Your task to perform on an android device: turn on translation in the chrome app Image 0: 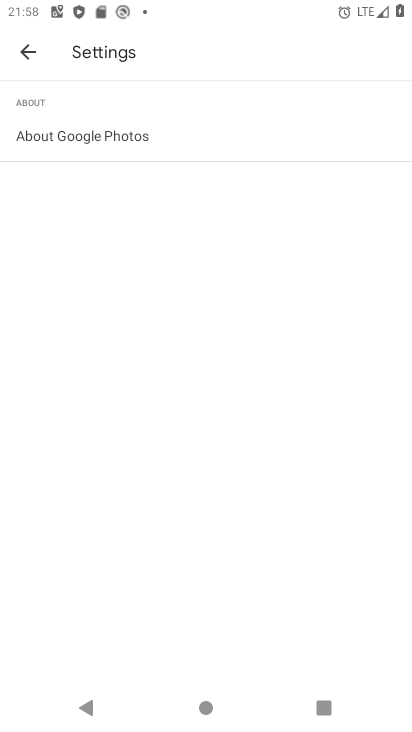
Step 0: press home button
Your task to perform on an android device: turn on translation in the chrome app Image 1: 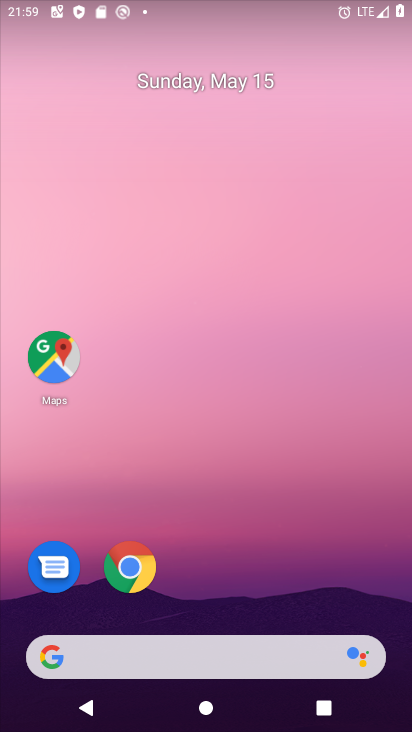
Step 1: click (134, 576)
Your task to perform on an android device: turn on translation in the chrome app Image 2: 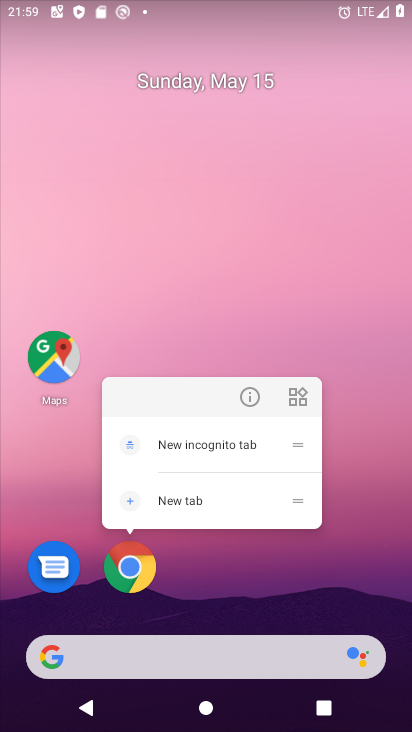
Step 2: click (134, 576)
Your task to perform on an android device: turn on translation in the chrome app Image 3: 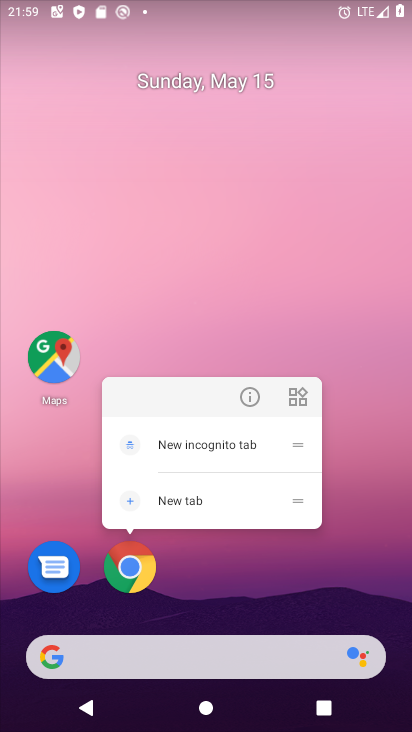
Step 3: click (134, 576)
Your task to perform on an android device: turn on translation in the chrome app Image 4: 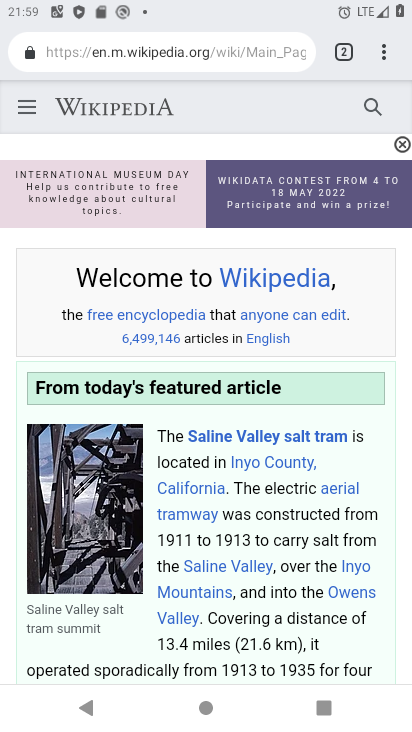
Step 4: click (390, 47)
Your task to perform on an android device: turn on translation in the chrome app Image 5: 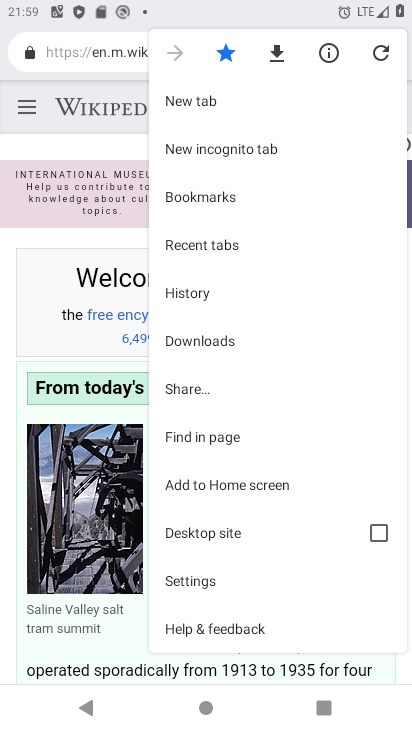
Step 5: click (221, 587)
Your task to perform on an android device: turn on translation in the chrome app Image 6: 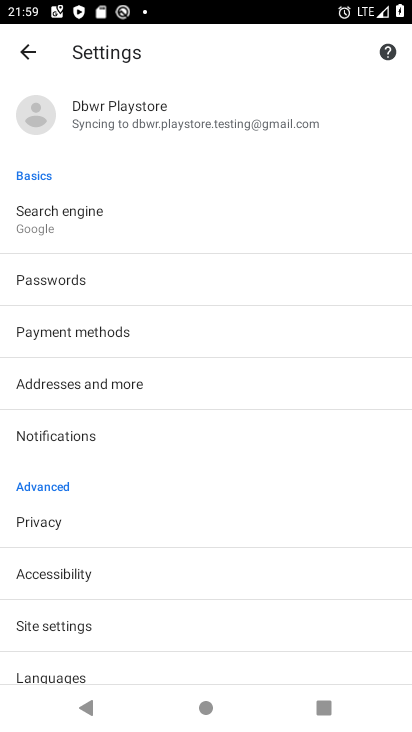
Step 6: drag from (246, 634) to (181, 174)
Your task to perform on an android device: turn on translation in the chrome app Image 7: 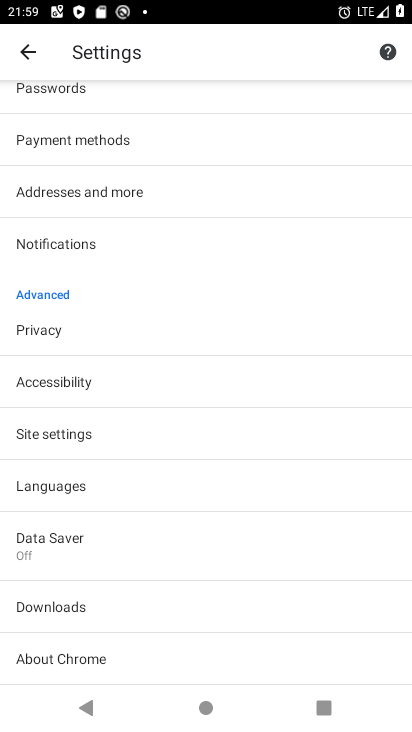
Step 7: click (117, 486)
Your task to perform on an android device: turn on translation in the chrome app Image 8: 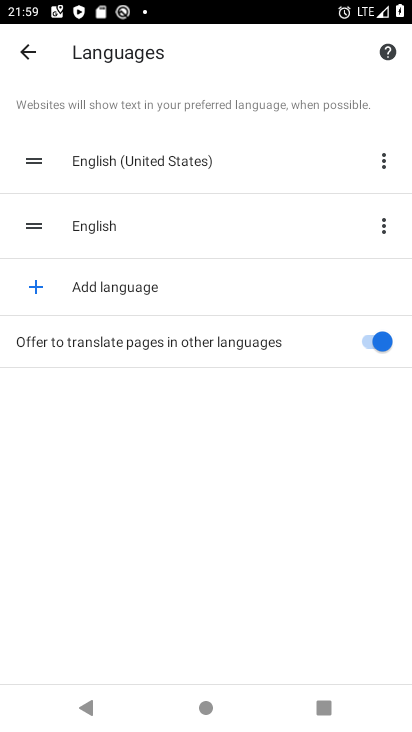
Step 8: task complete